Your task to perform on an android device: add a label to a message in the gmail app Image 0: 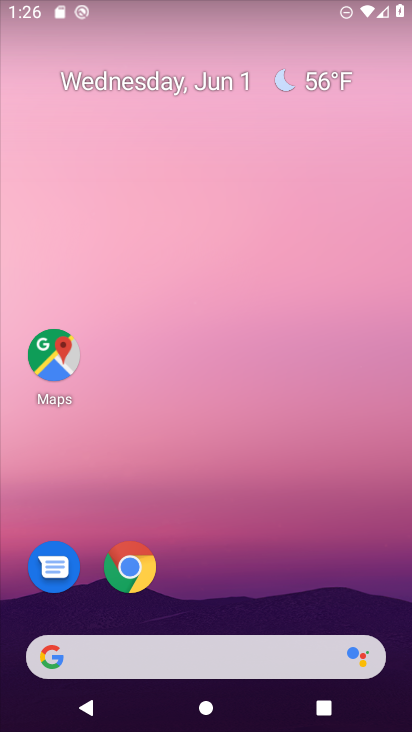
Step 0: drag from (180, 649) to (128, 154)
Your task to perform on an android device: add a label to a message in the gmail app Image 1: 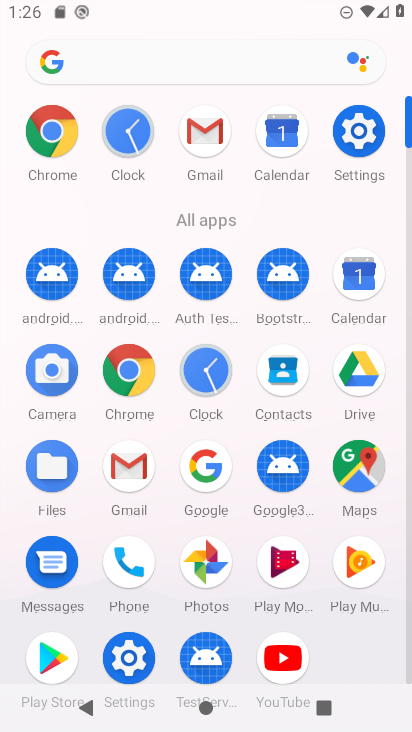
Step 1: click (212, 129)
Your task to perform on an android device: add a label to a message in the gmail app Image 2: 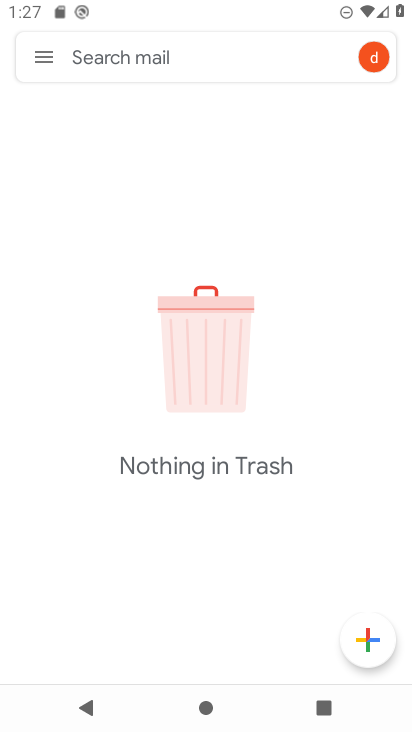
Step 2: click (36, 55)
Your task to perform on an android device: add a label to a message in the gmail app Image 3: 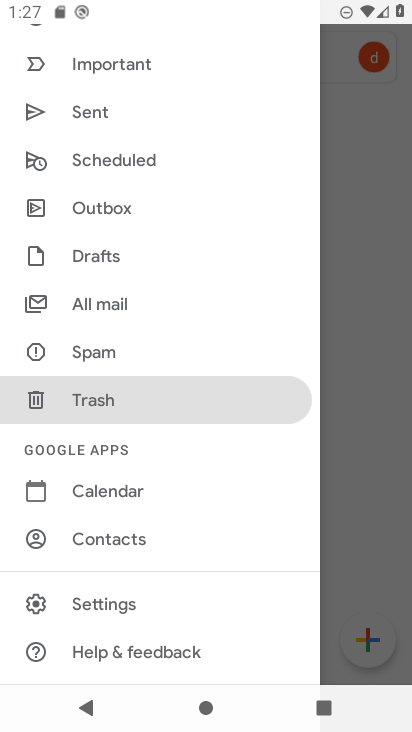
Step 3: click (95, 304)
Your task to perform on an android device: add a label to a message in the gmail app Image 4: 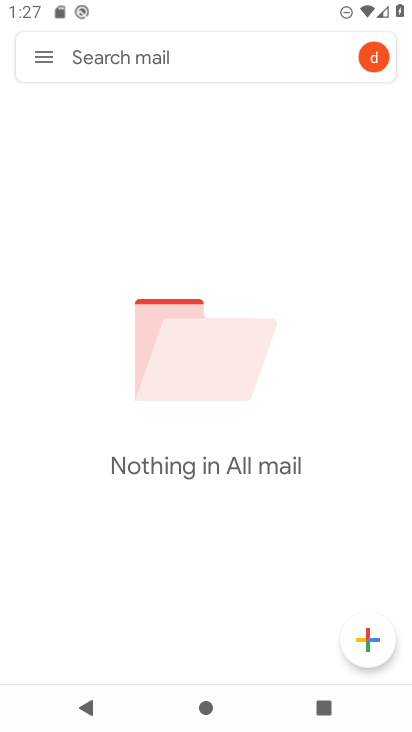
Step 4: task complete